Your task to perform on an android device: Open battery settings Image 0: 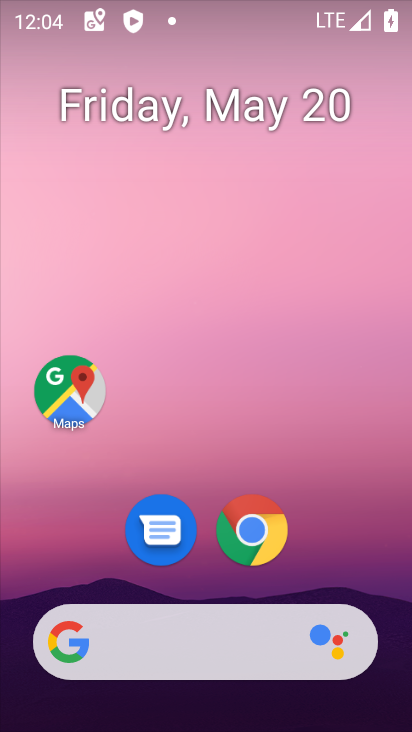
Step 0: drag from (320, 167) to (283, 15)
Your task to perform on an android device: Open battery settings Image 1: 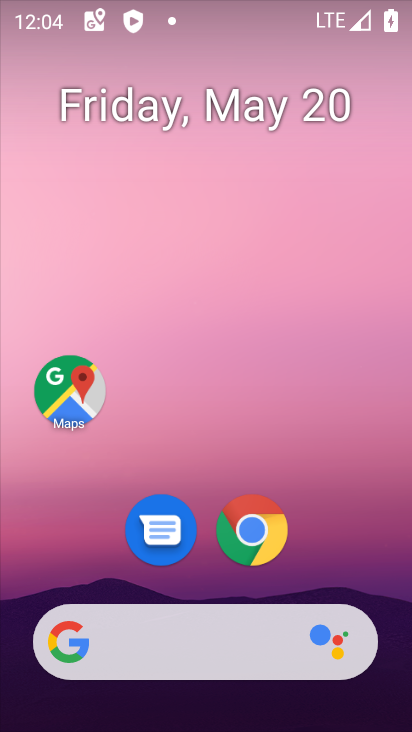
Step 1: drag from (174, 637) to (316, 149)
Your task to perform on an android device: Open battery settings Image 2: 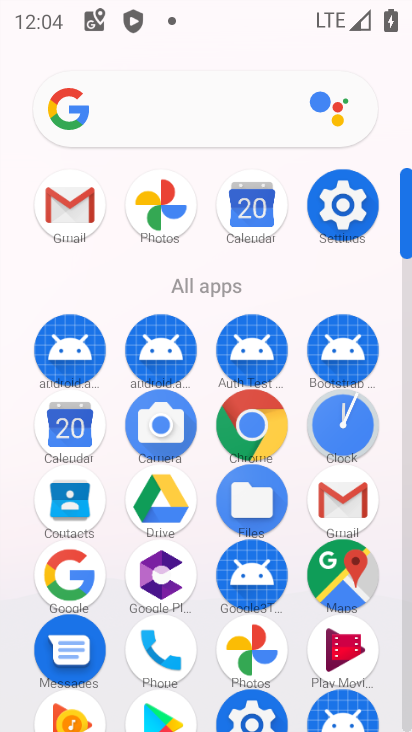
Step 2: click (337, 205)
Your task to perform on an android device: Open battery settings Image 3: 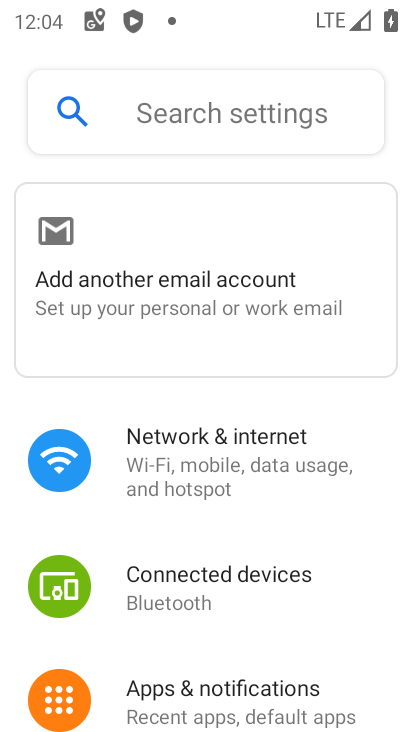
Step 3: click (309, 196)
Your task to perform on an android device: Open battery settings Image 4: 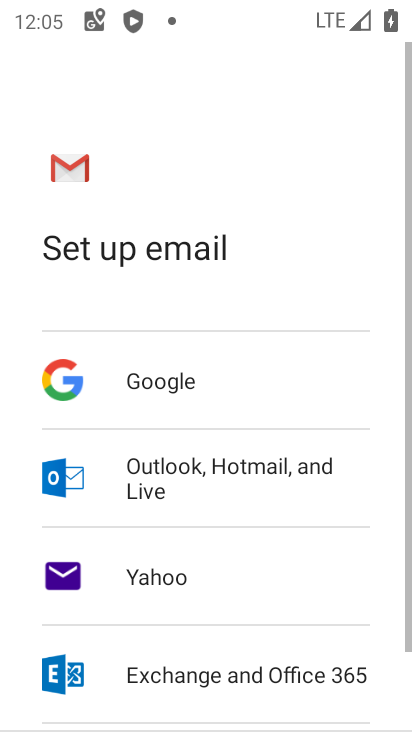
Step 4: press home button
Your task to perform on an android device: Open battery settings Image 5: 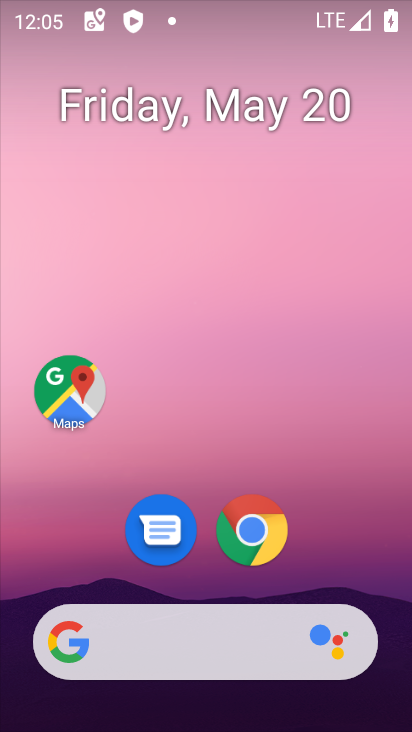
Step 5: drag from (177, 692) to (177, 62)
Your task to perform on an android device: Open battery settings Image 6: 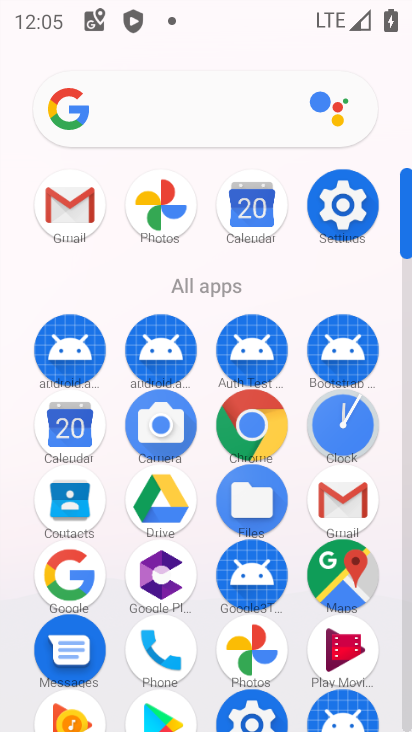
Step 6: click (351, 198)
Your task to perform on an android device: Open battery settings Image 7: 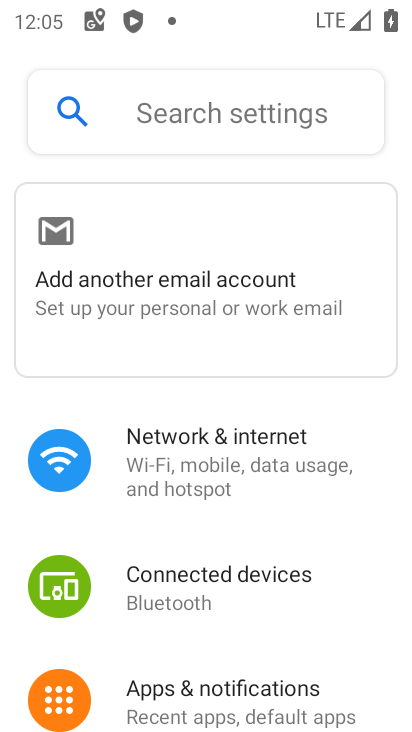
Step 7: drag from (258, 655) to (323, 49)
Your task to perform on an android device: Open battery settings Image 8: 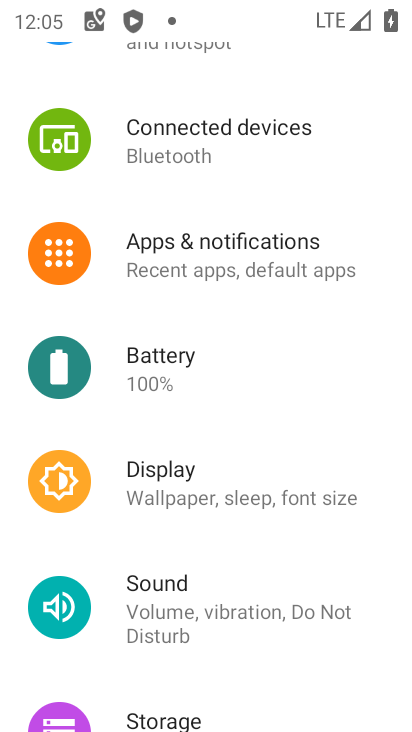
Step 8: click (168, 457)
Your task to perform on an android device: Open battery settings Image 9: 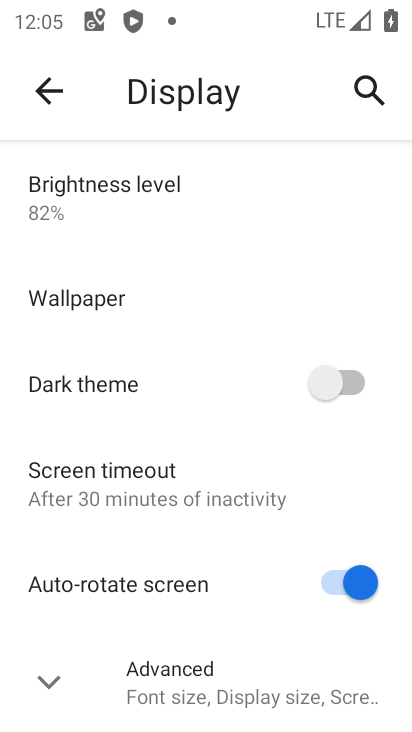
Step 9: task complete